Your task to perform on an android device: What's the weather? Image 0: 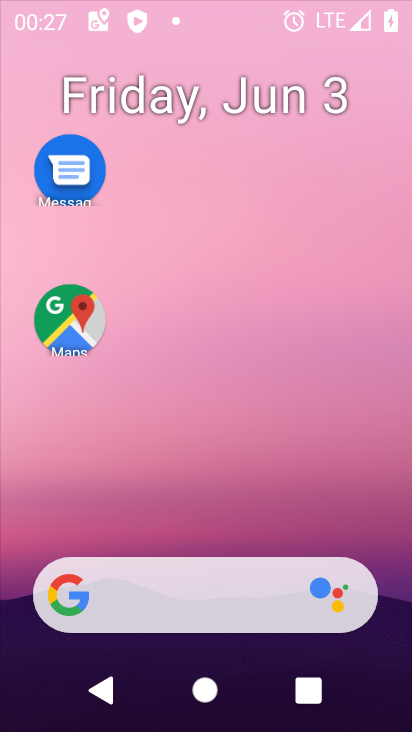
Step 0: press home button
Your task to perform on an android device: What's the weather? Image 1: 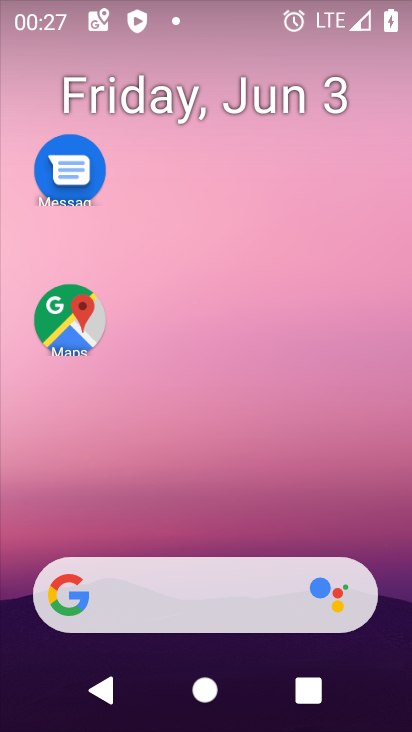
Step 1: drag from (301, 531) to (263, 60)
Your task to perform on an android device: What's the weather? Image 2: 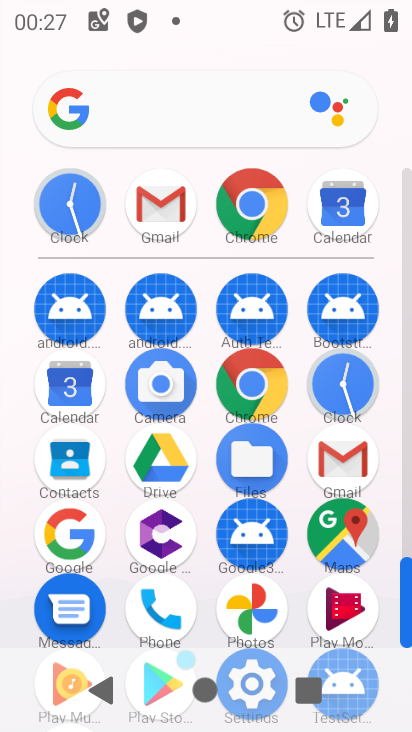
Step 2: click (237, 199)
Your task to perform on an android device: What's the weather? Image 3: 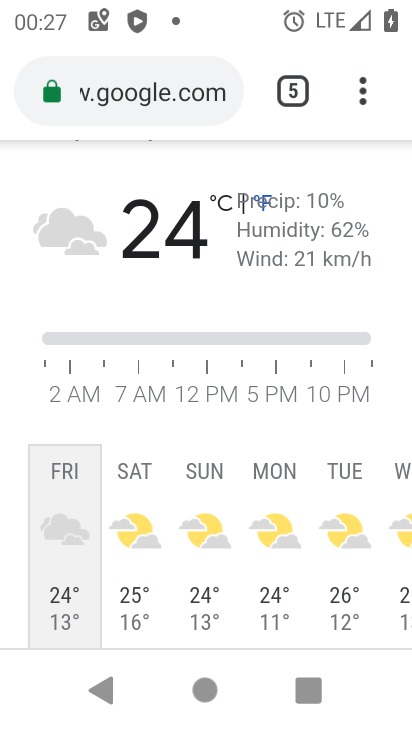
Step 3: click (127, 104)
Your task to perform on an android device: What's the weather? Image 4: 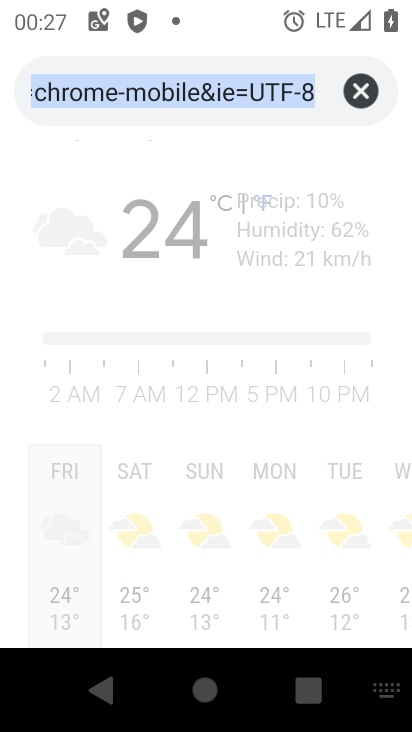
Step 4: type "What's the weather?"
Your task to perform on an android device: What's the weather? Image 5: 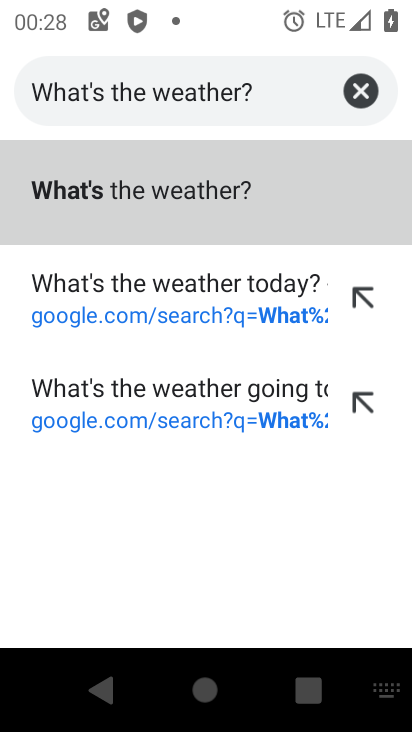
Step 5: click (211, 155)
Your task to perform on an android device: What's the weather? Image 6: 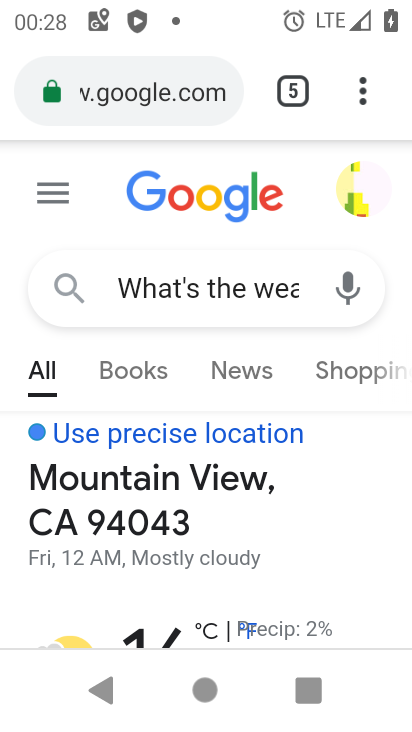
Step 6: task complete